Your task to perform on an android device: Search for logitech g pro on amazon.com, select the first entry, add it to the cart, then select checkout. Image 0: 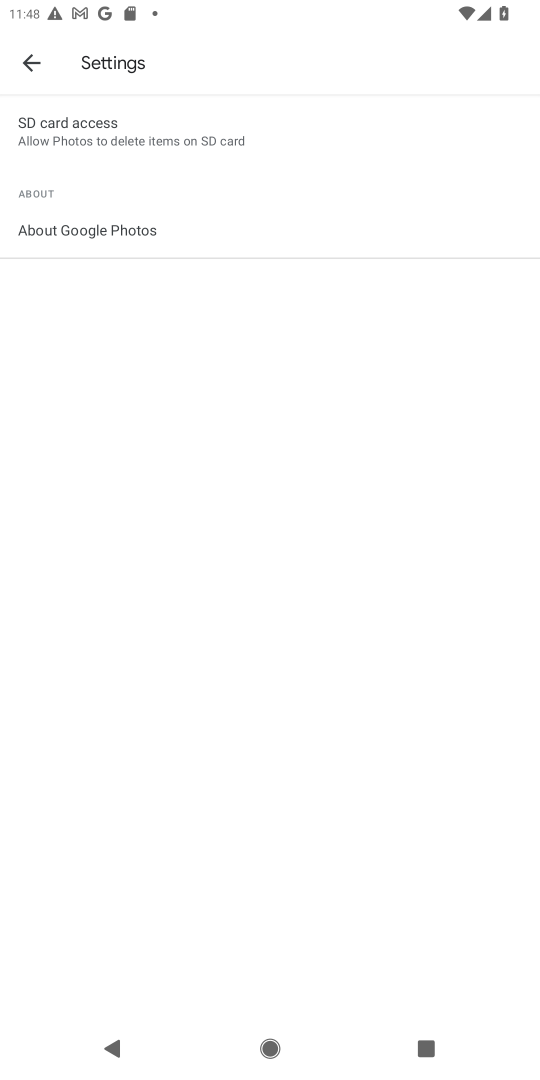
Step 0: press home button
Your task to perform on an android device: Search for logitech g pro on amazon.com, select the first entry, add it to the cart, then select checkout. Image 1: 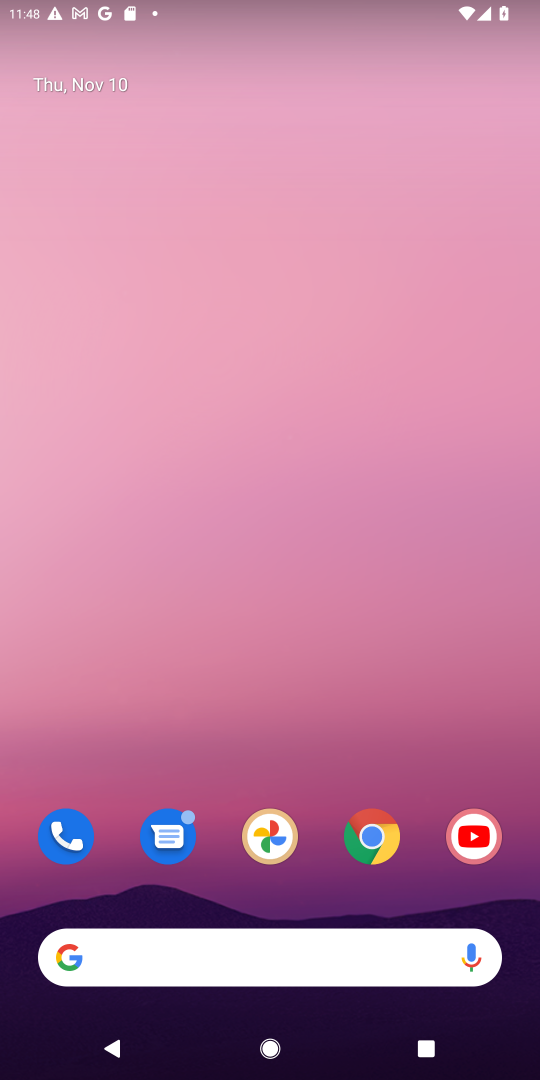
Step 1: click (263, 954)
Your task to perform on an android device: Search for logitech g pro on amazon.com, select the first entry, add it to the cart, then select checkout. Image 2: 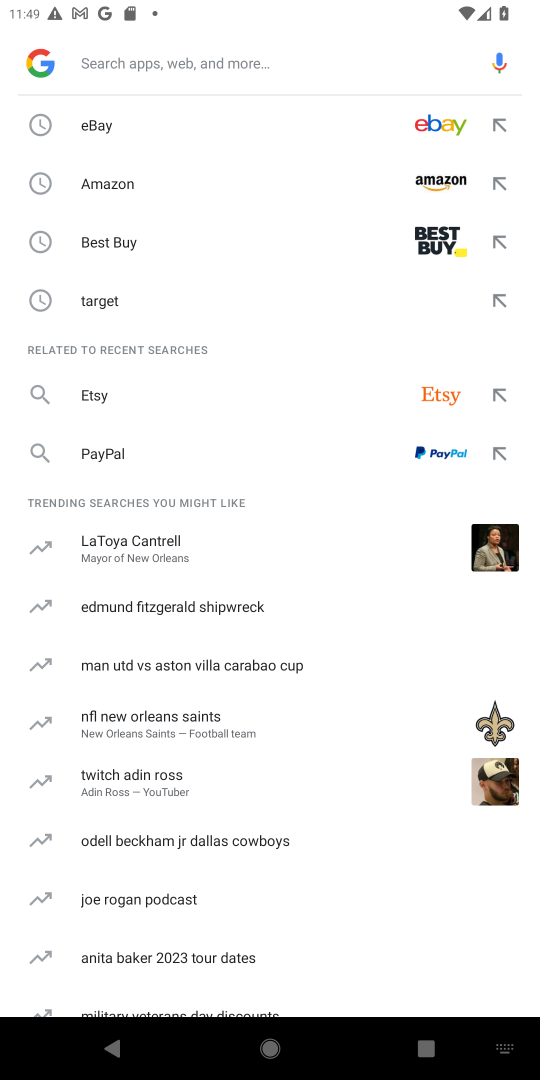
Step 2: type "amazon.com"
Your task to perform on an android device: Search for logitech g pro on amazon.com, select the first entry, add it to the cart, then select checkout. Image 3: 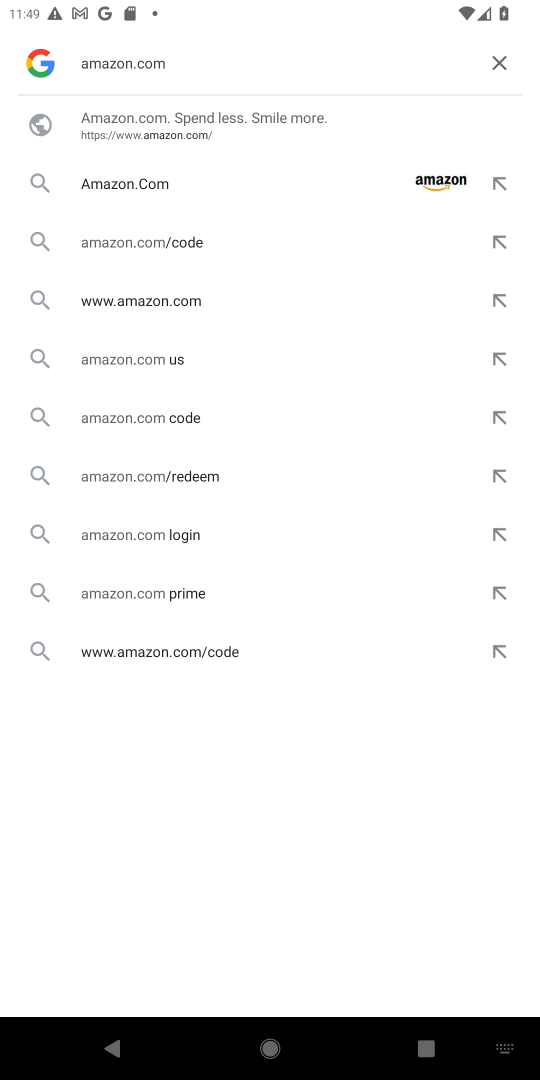
Step 3: click (196, 176)
Your task to perform on an android device: Search for logitech g pro on amazon.com, select the first entry, add it to the cart, then select checkout. Image 4: 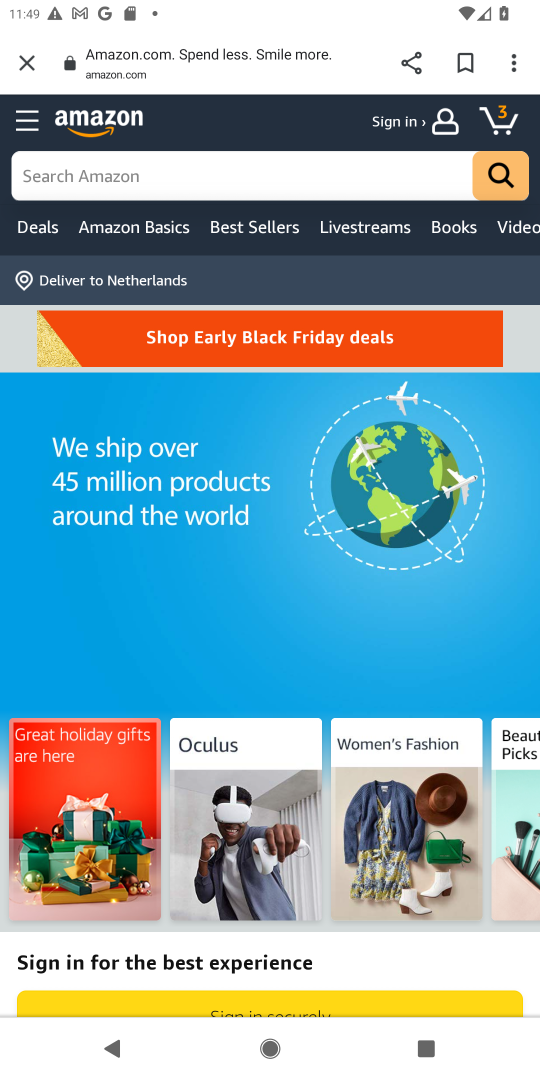
Step 4: click (115, 161)
Your task to perform on an android device: Search for logitech g pro on amazon.com, select the first entry, add it to the cart, then select checkout. Image 5: 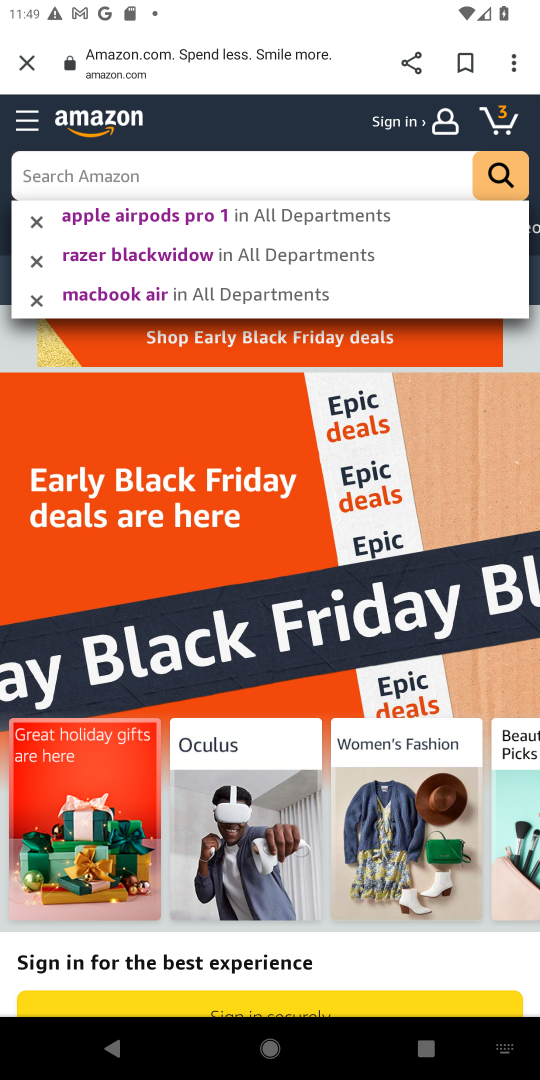
Step 5: type "logitech g pro"
Your task to perform on an android device: Search for logitech g pro on amazon.com, select the first entry, add it to the cart, then select checkout. Image 6: 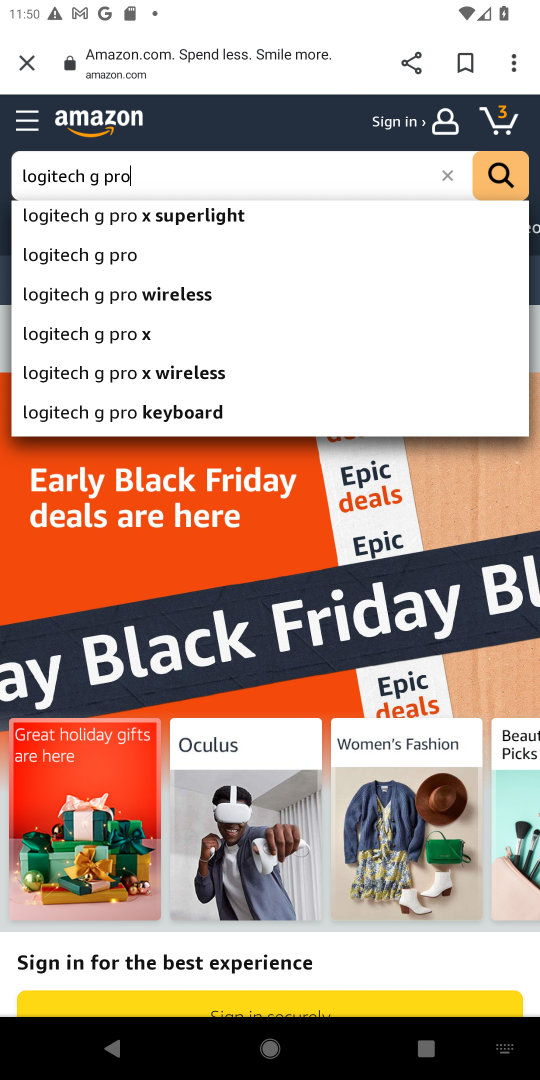
Step 6: click (92, 250)
Your task to perform on an android device: Search for logitech g pro on amazon.com, select the first entry, add it to the cart, then select checkout. Image 7: 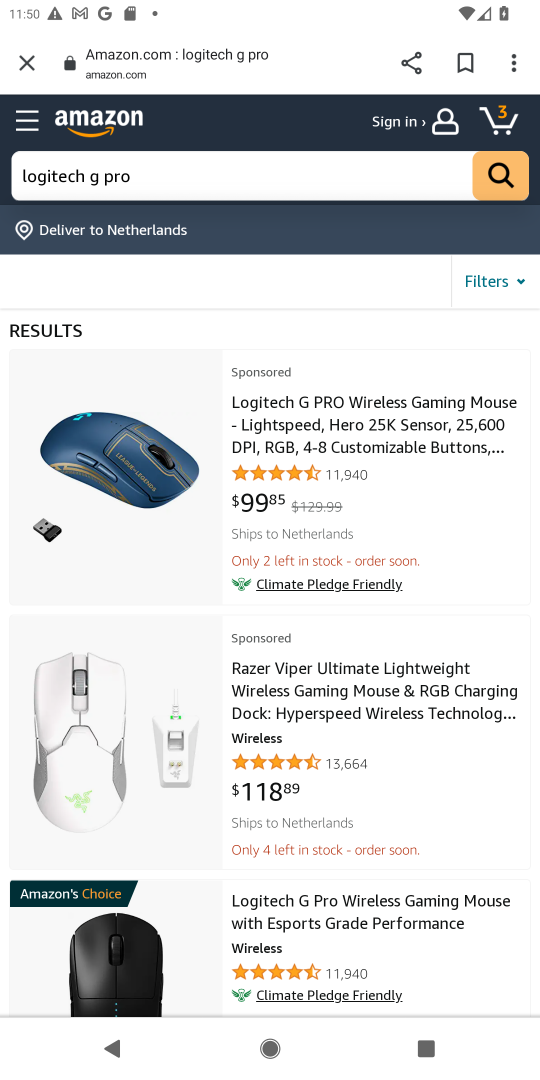
Step 7: click (256, 407)
Your task to perform on an android device: Search for logitech g pro on amazon.com, select the first entry, add it to the cart, then select checkout. Image 8: 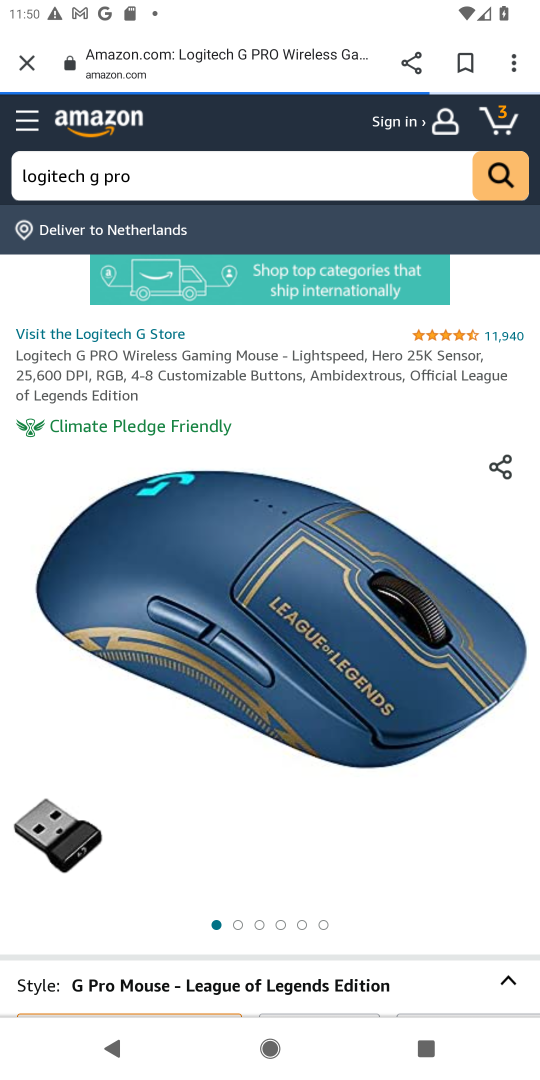
Step 8: drag from (305, 563) to (335, 465)
Your task to perform on an android device: Search for logitech g pro on amazon.com, select the first entry, add it to the cart, then select checkout. Image 9: 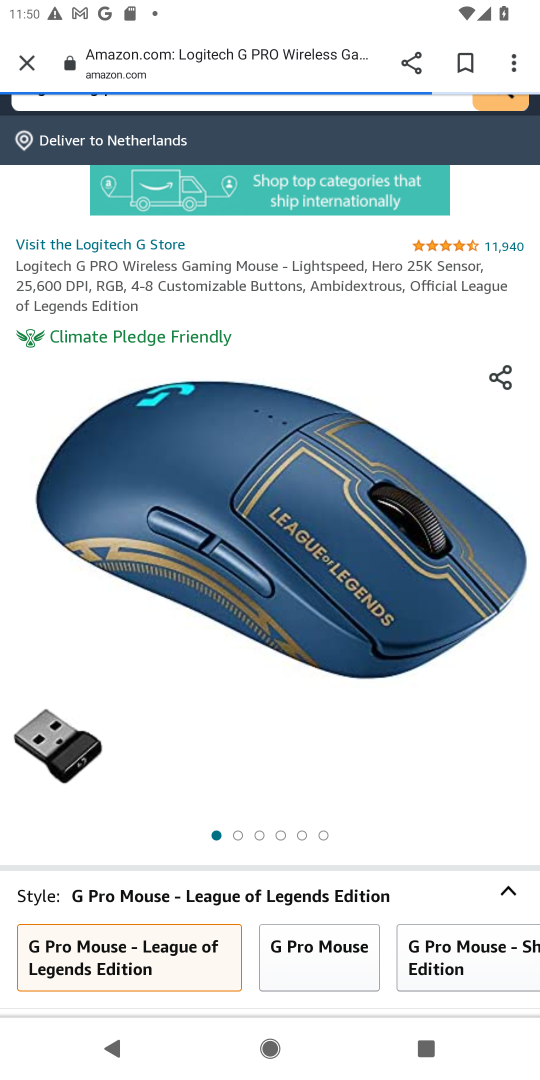
Step 9: drag from (357, 752) to (453, 318)
Your task to perform on an android device: Search for logitech g pro on amazon.com, select the first entry, add it to the cart, then select checkout. Image 10: 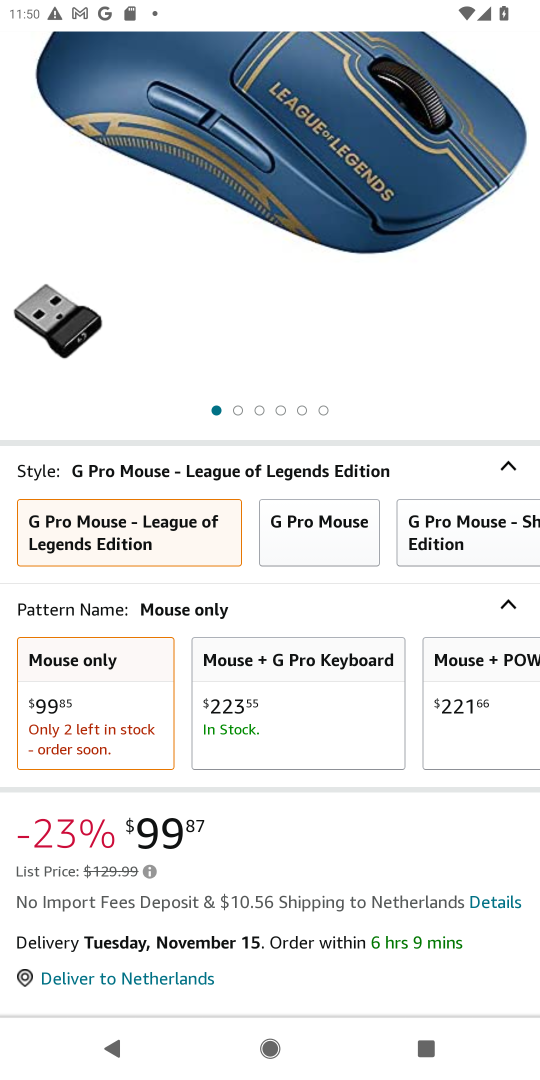
Step 10: drag from (271, 791) to (453, 389)
Your task to perform on an android device: Search for logitech g pro on amazon.com, select the first entry, add it to the cart, then select checkout. Image 11: 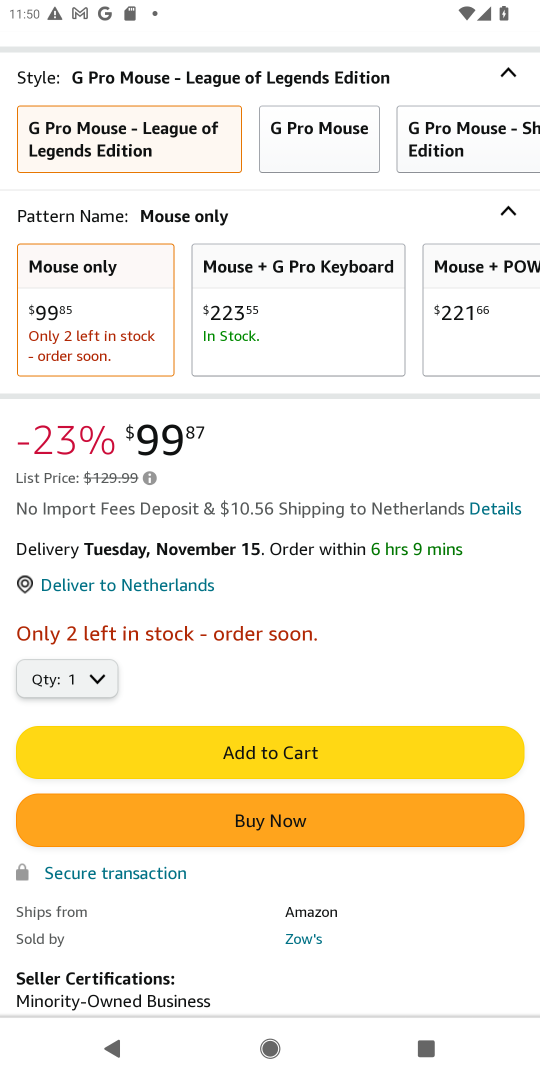
Step 11: click (260, 756)
Your task to perform on an android device: Search for logitech g pro on amazon.com, select the first entry, add it to the cart, then select checkout. Image 12: 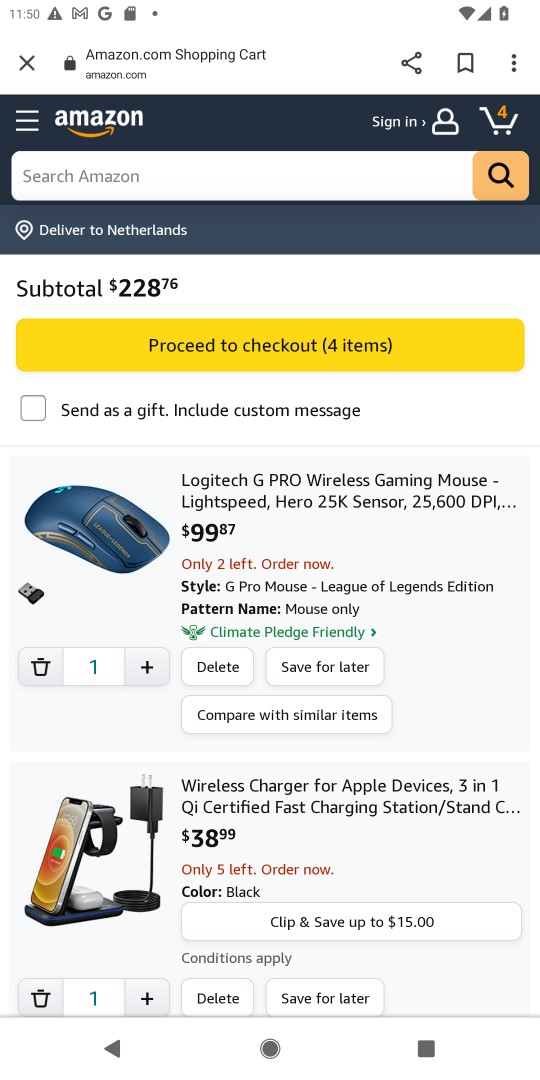
Step 12: click (497, 112)
Your task to perform on an android device: Search for logitech g pro on amazon.com, select the first entry, add it to the cart, then select checkout. Image 13: 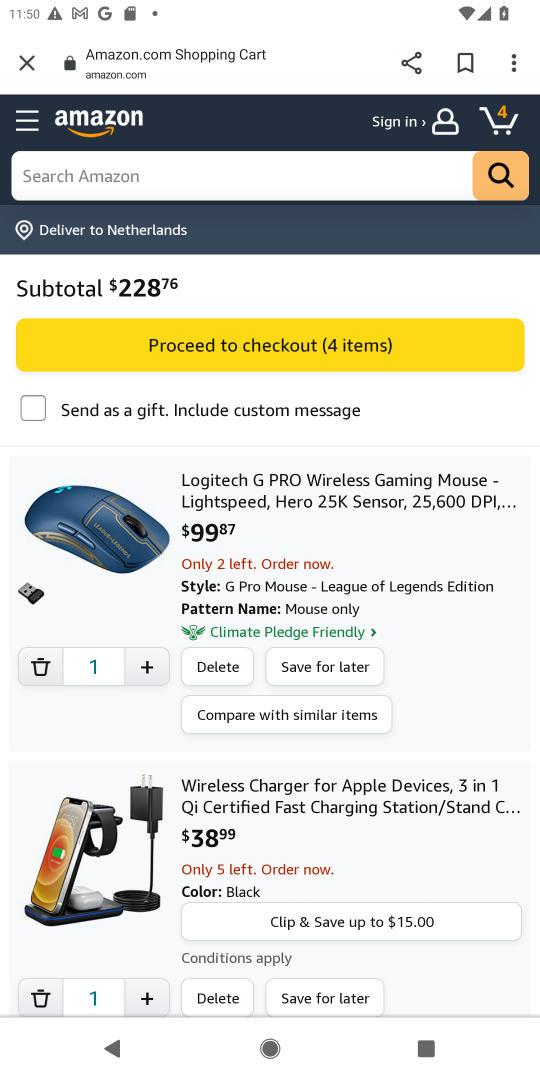
Step 13: click (267, 341)
Your task to perform on an android device: Search for logitech g pro on amazon.com, select the first entry, add it to the cart, then select checkout. Image 14: 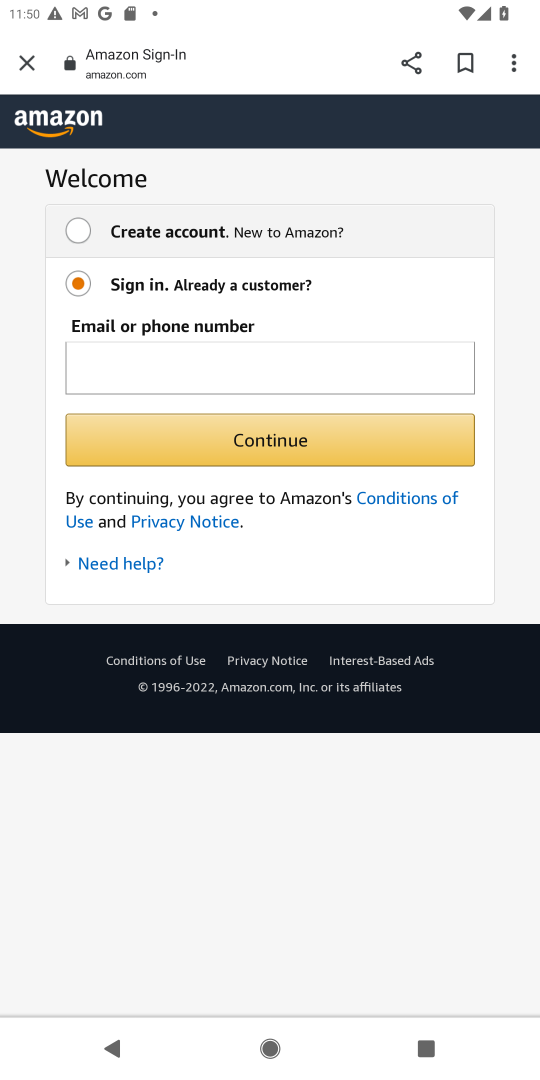
Step 14: task complete